Your task to perform on an android device: toggle priority inbox in the gmail app Image 0: 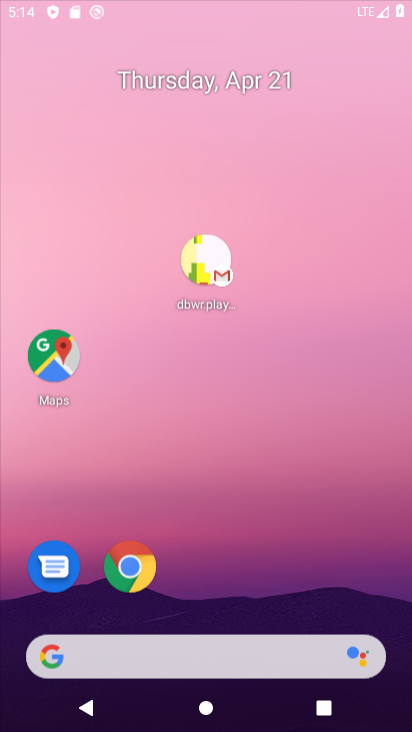
Step 0: click (311, 457)
Your task to perform on an android device: toggle priority inbox in the gmail app Image 1: 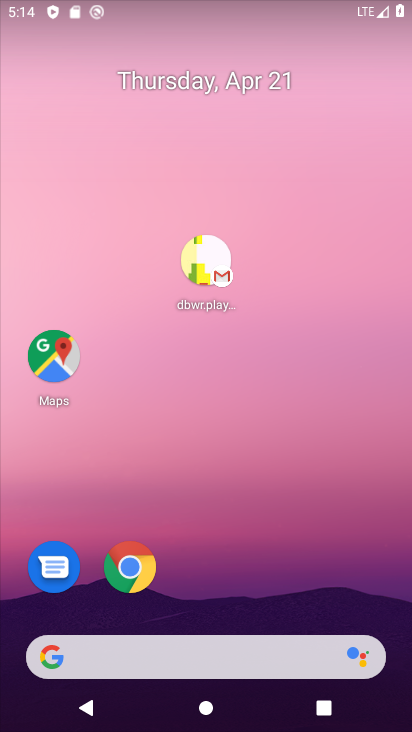
Step 1: drag from (224, 471) to (266, 207)
Your task to perform on an android device: toggle priority inbox in the gmail app Image 2: 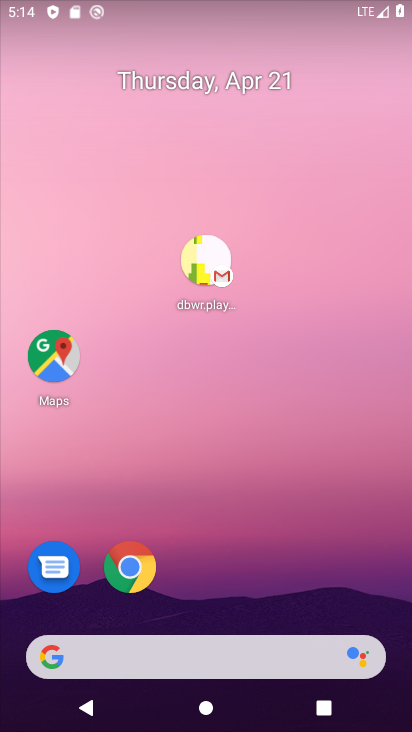
Step 2: drag from (214, 559) to (322, 24)
Your task to perform on an android device: toggle priority inbox in the gmail app Image 3: 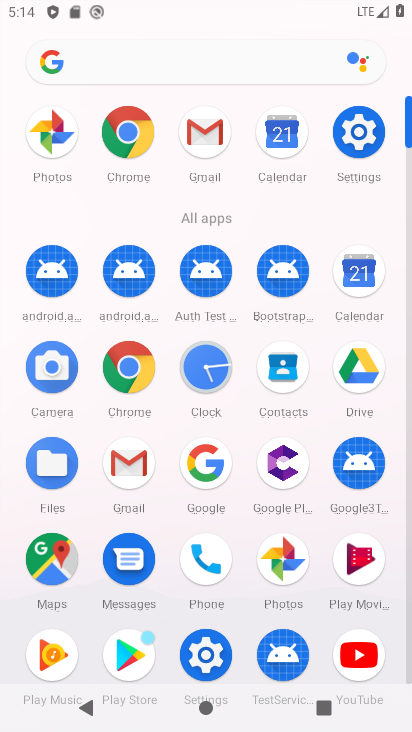
Step 3: click (128, 482)
Your task to perform on an android device: toggle priority inbox in the gmail app Image 4: 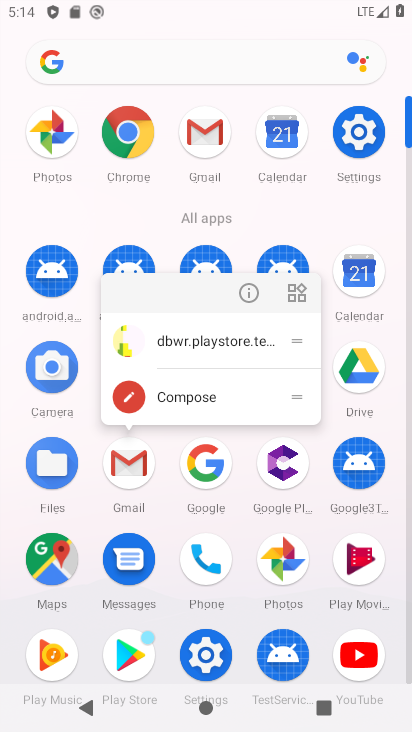
Step 4: click (136, 477)
Your task to perform on an android device: toggle priority inbox in the gmail app Image 5: 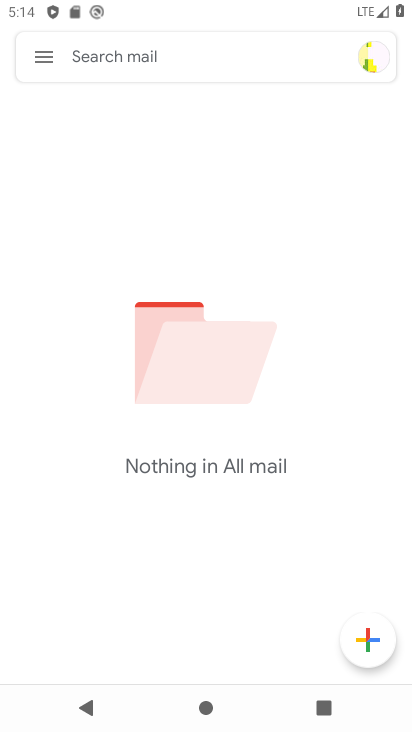
Step 5: click (29, 58)
Your task to perform on an android device: toggle priority inbox in the gmail app Image 6: 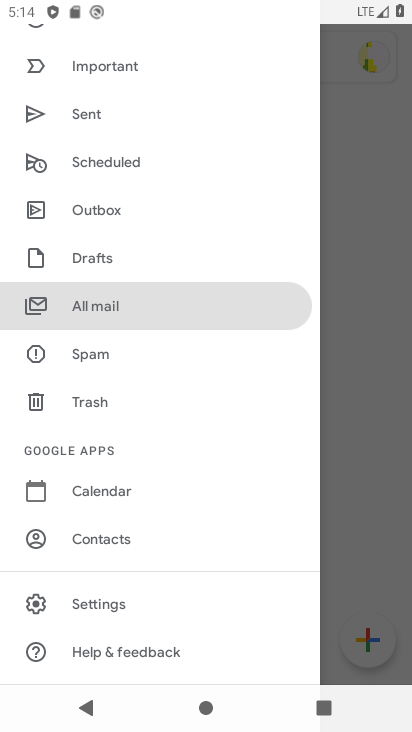
Step 6: click (104, 605)
Your task to perform on an android device: toggle priority inbox in the gmail app Image 7: 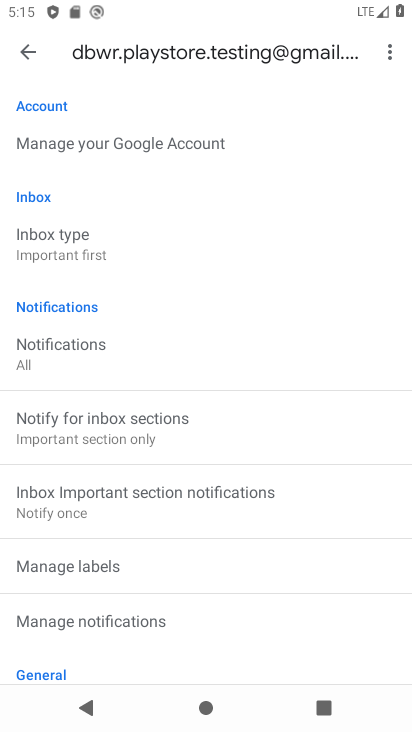
Step 7: click (70, 256)
Your task to perform on an android device: toggle priority inbox in the gmail app Image 8: 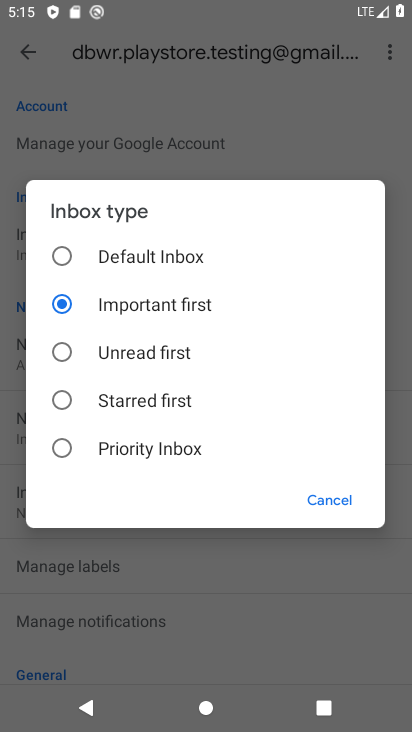
Step 8: click (67, 449)
Your task to perform on an android device: toggle priority inbox in the gmail app Image 9: 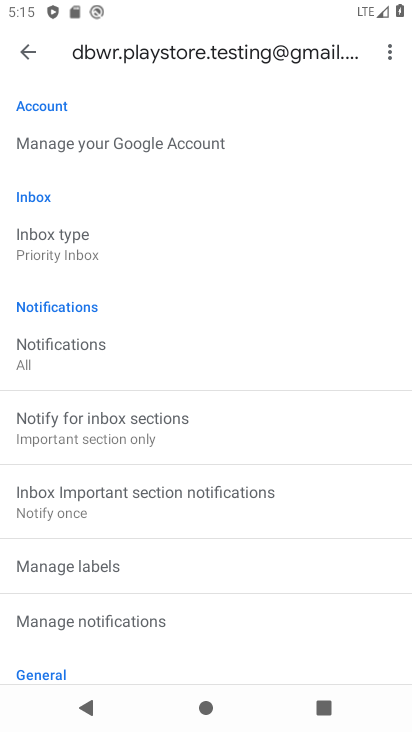
Step 9: task complete